Your task to perform on an android device: Go to notification settings Image 0: 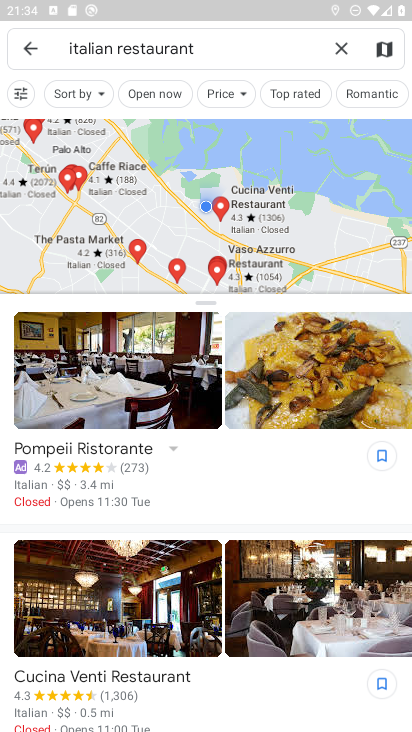
Step 0: press home button
Your task to perform on an android device: Go to notification settings Image 1: 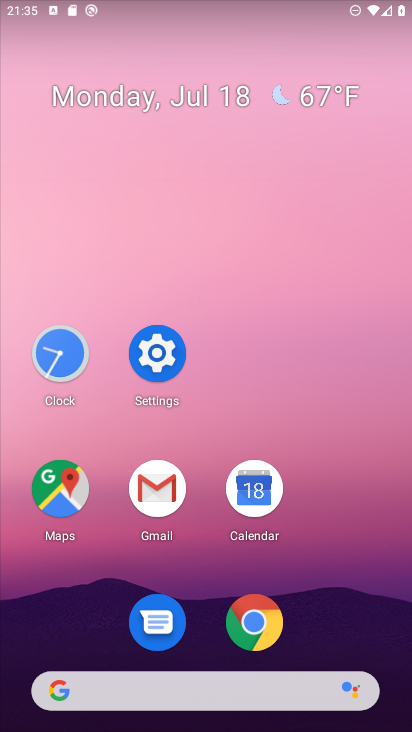
Step 1: click (151, 350)
Your task to perform on an android device: Go to notification settings Image 2: 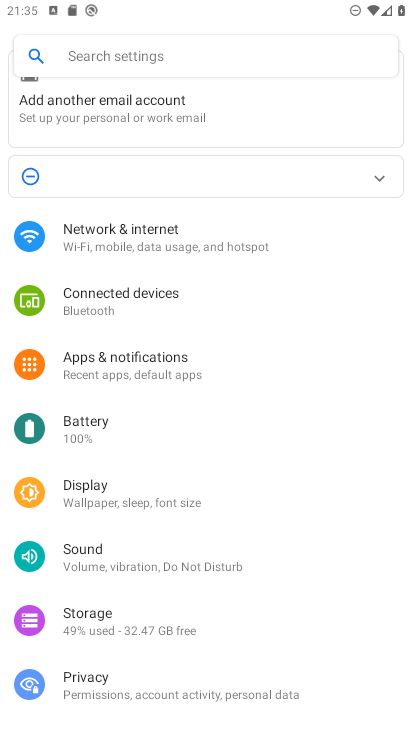
Step 2: click (119, 359)
Your task to perform on an android device: Go to notification settings Image 3: 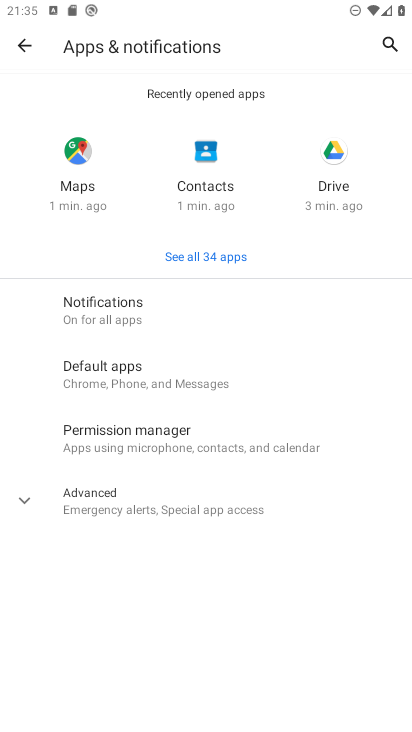
Step 3: click (16, 497)
Your task to perform on an android device: Go to notification settings Image 4: 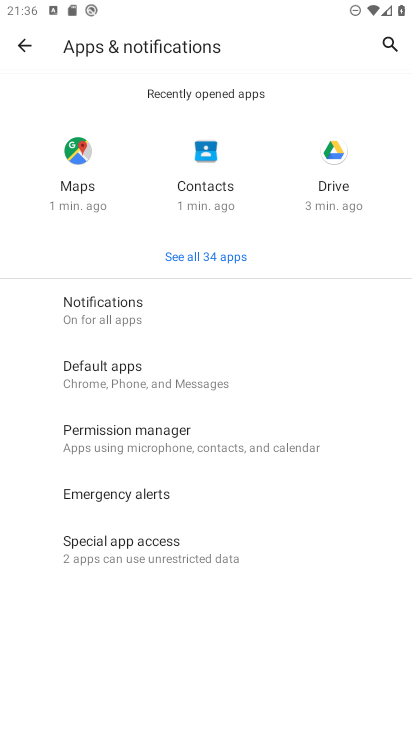
Step 4: task complete